Your task to perform on an android device: turn off sleep mode Image 0: 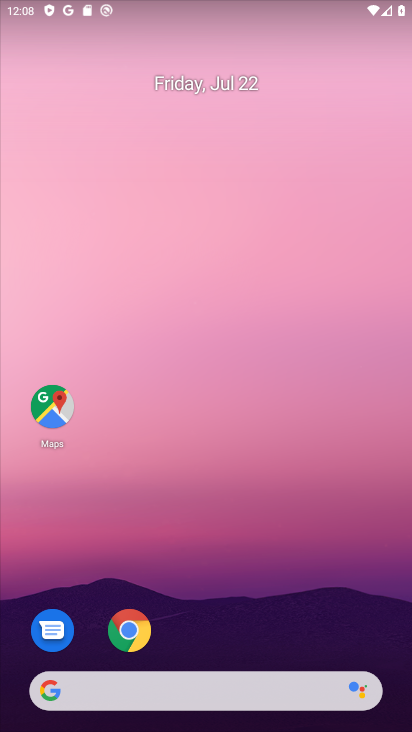
Step 0: drag from (204, 628) to (223, 109)
Your task to perform on an android device: turn off sleep mode Image 1: 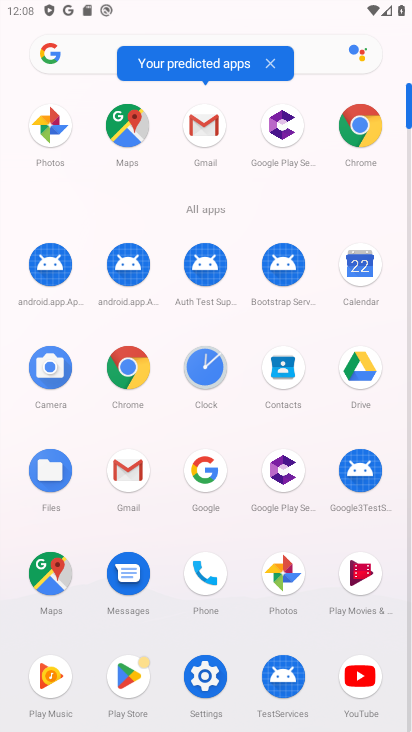
Step 1: click (206, 666)
Your task to perform on an android device: turn off sleep mode Image 2: 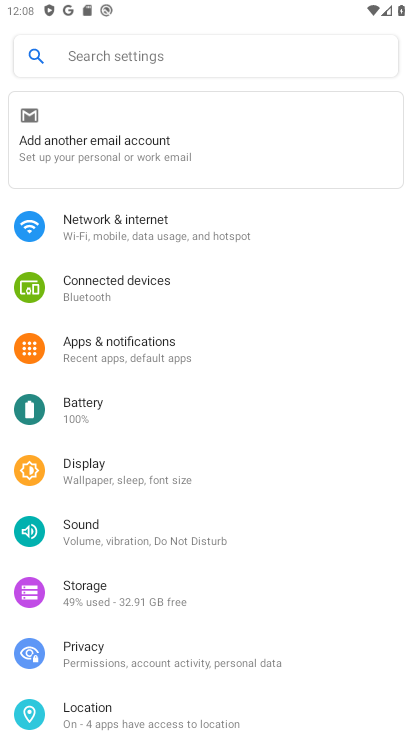
Step 2: click (119, 473)
Your task to perform on an android device: turn off sleep mode Image 3: 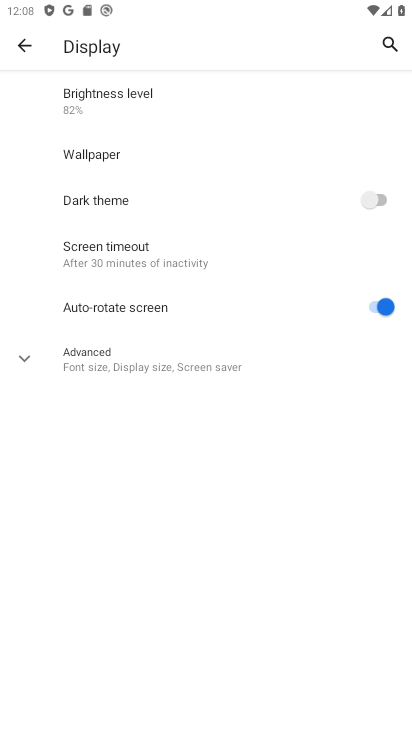
Step 3: click (91, 237)
Your task to perform on an android device: turn off sleep mode Image 4: 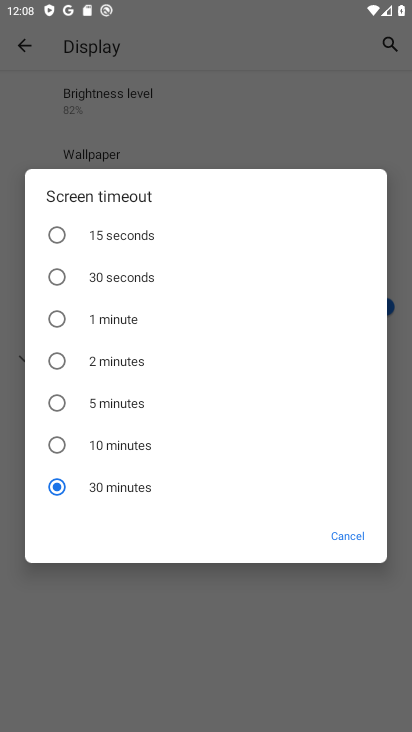
Step 4: task complete